Your task to perform on an android device: Go to privacy settings Image 0: 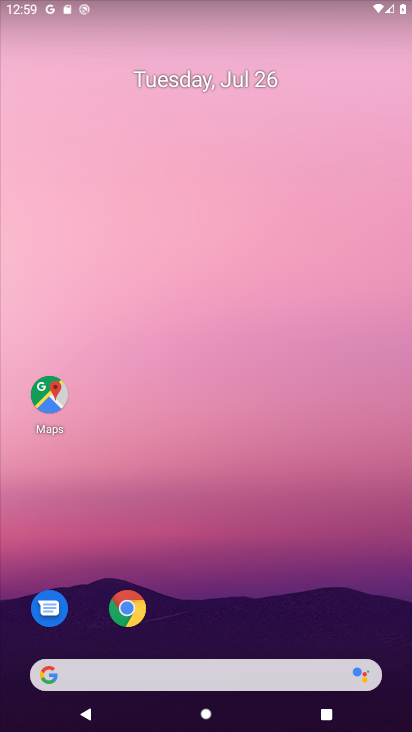
Step 0: drag from (189, 612) to (211, 27)
Your task to perform on an android device: Go to privacy settings Image 1: 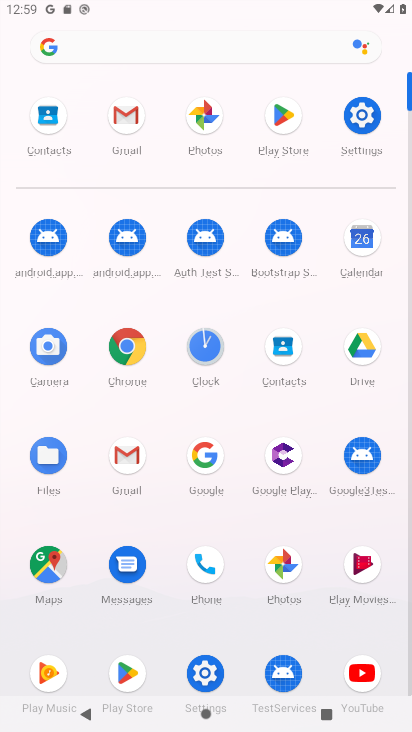
Step 1: click (373, 125)
Your task to perform on an android device: Go to privacy settings Image 2: 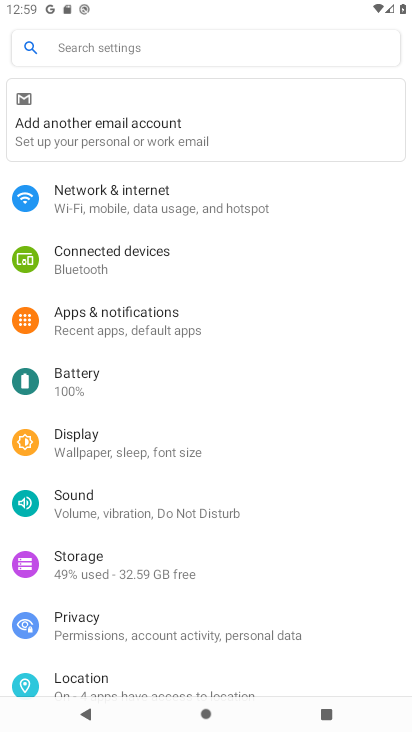
Step 2: click (46, 613)
Your task to perform on an android device: Go to privacy settings Image 3: 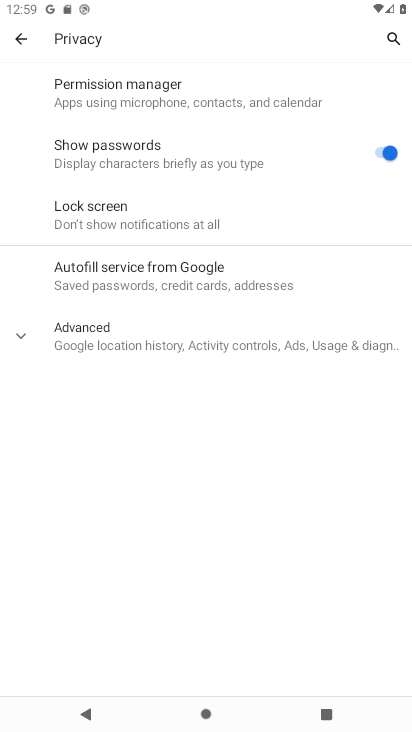
Step 3: task complete